Your task to perform on an android device: Go to ESPN.com Image 0: 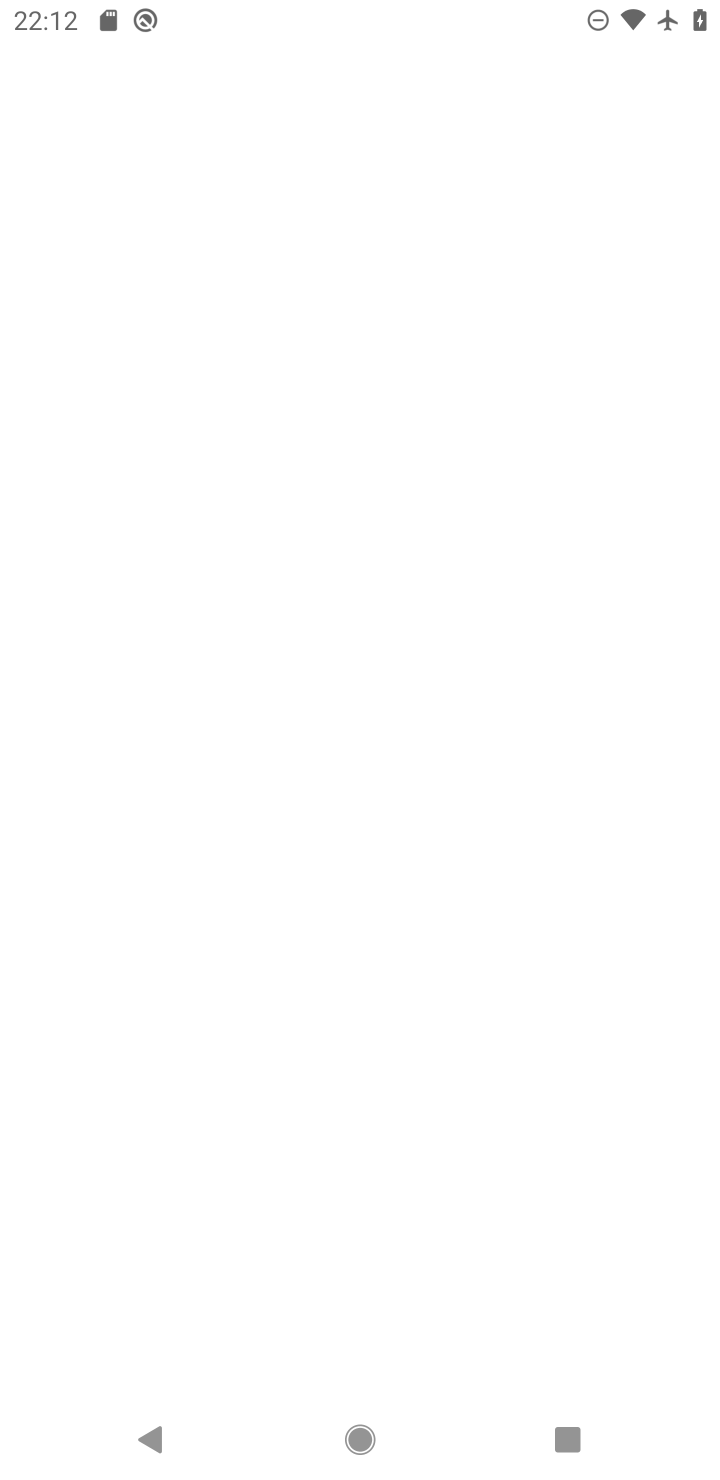
Step 0: press home button
Your task to perform on an android device: Go to ESPN.com Image 1: 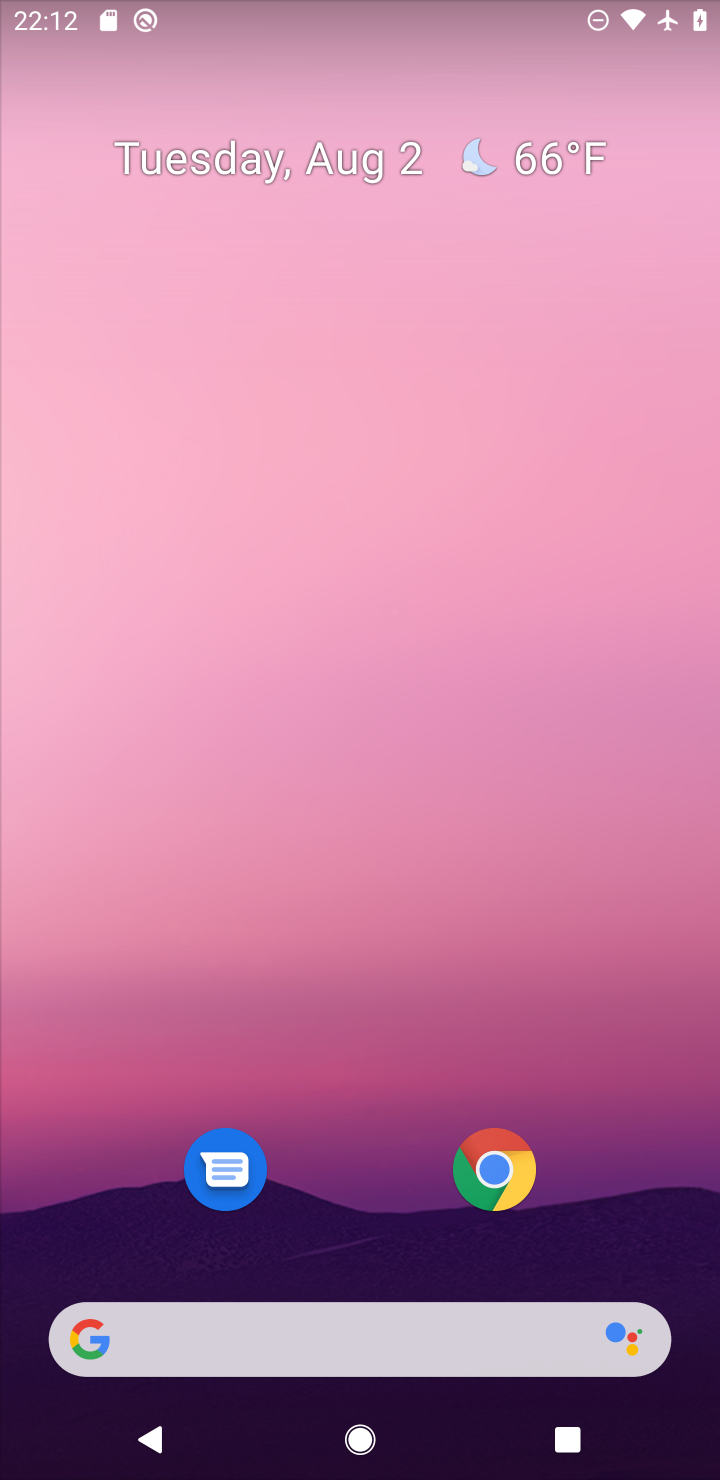
Step 1: click (500, 1168)
Your task to perform on an android device: Go to ESPN.com Image 2: 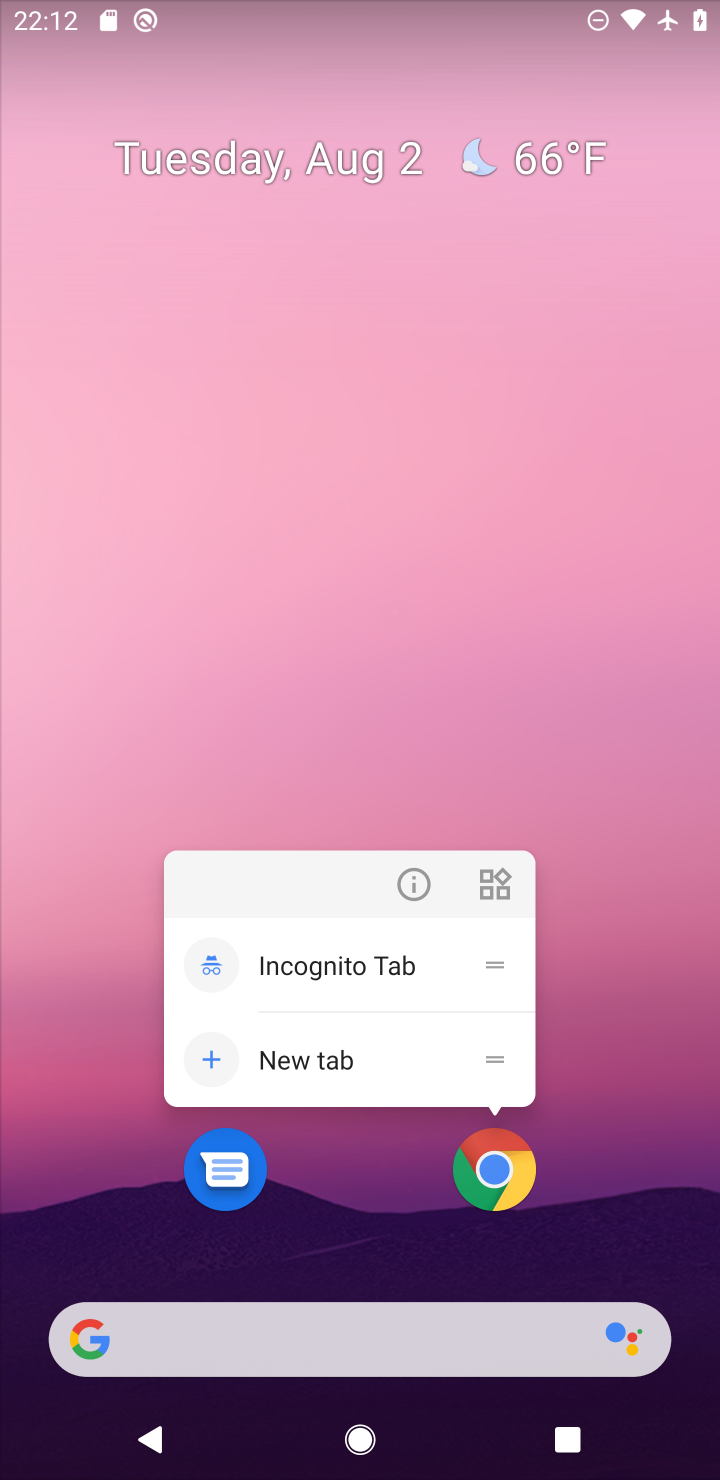
Step 2: click (500, 1170)
Your task to perform on an android device: Go to ESPN.com Image 3: 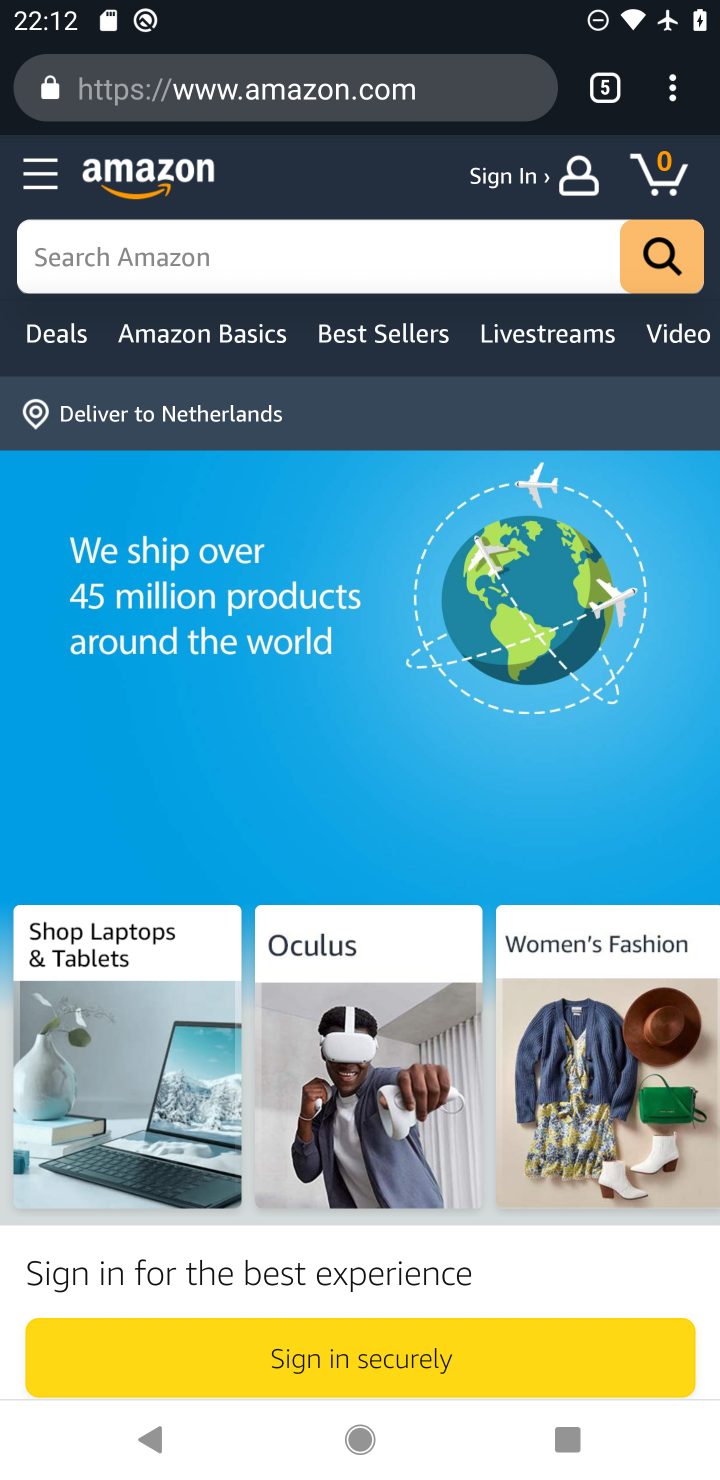
Step 3: click (677, 99)
Your task to perform on an android device: Go to ESPN.com Image 4: 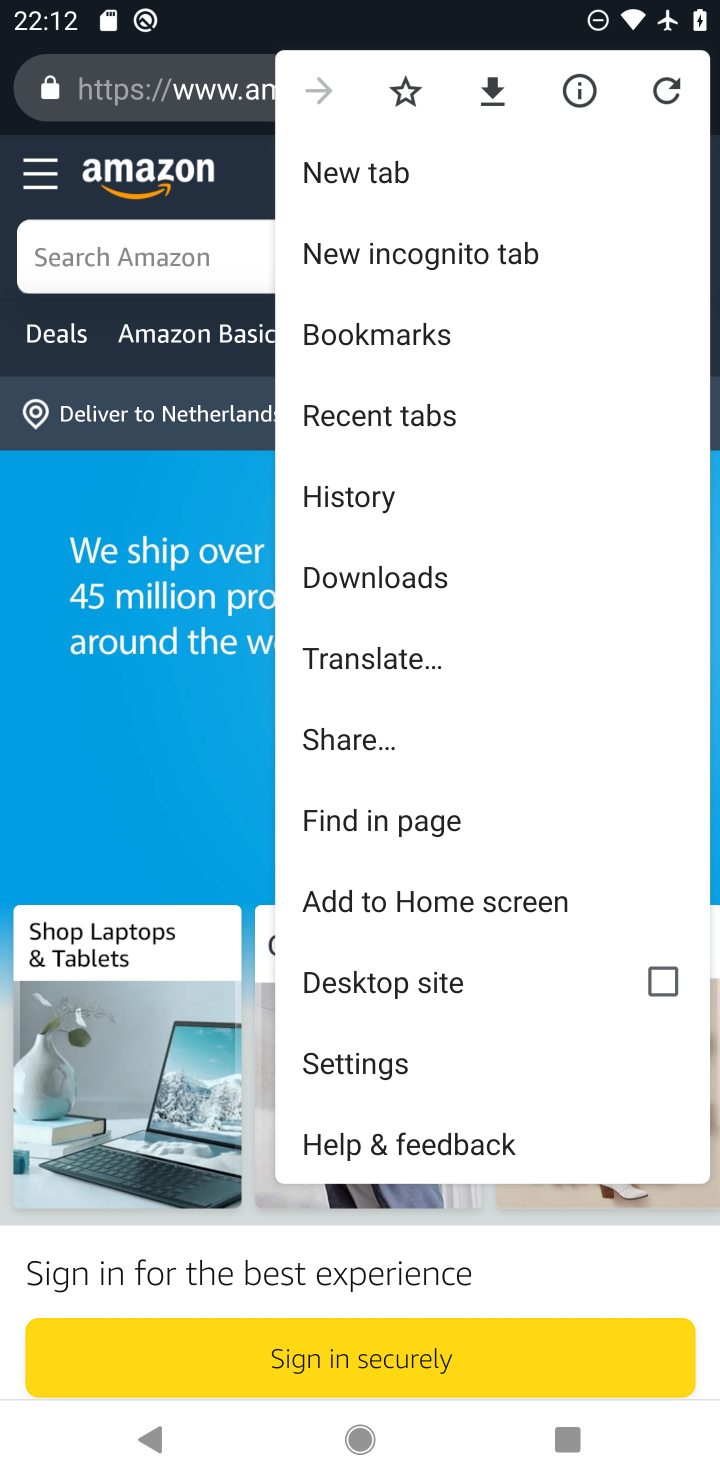
Step 4: click (357, 161)
Your task to perform on an android device: Go to ESPN.com Image 5: 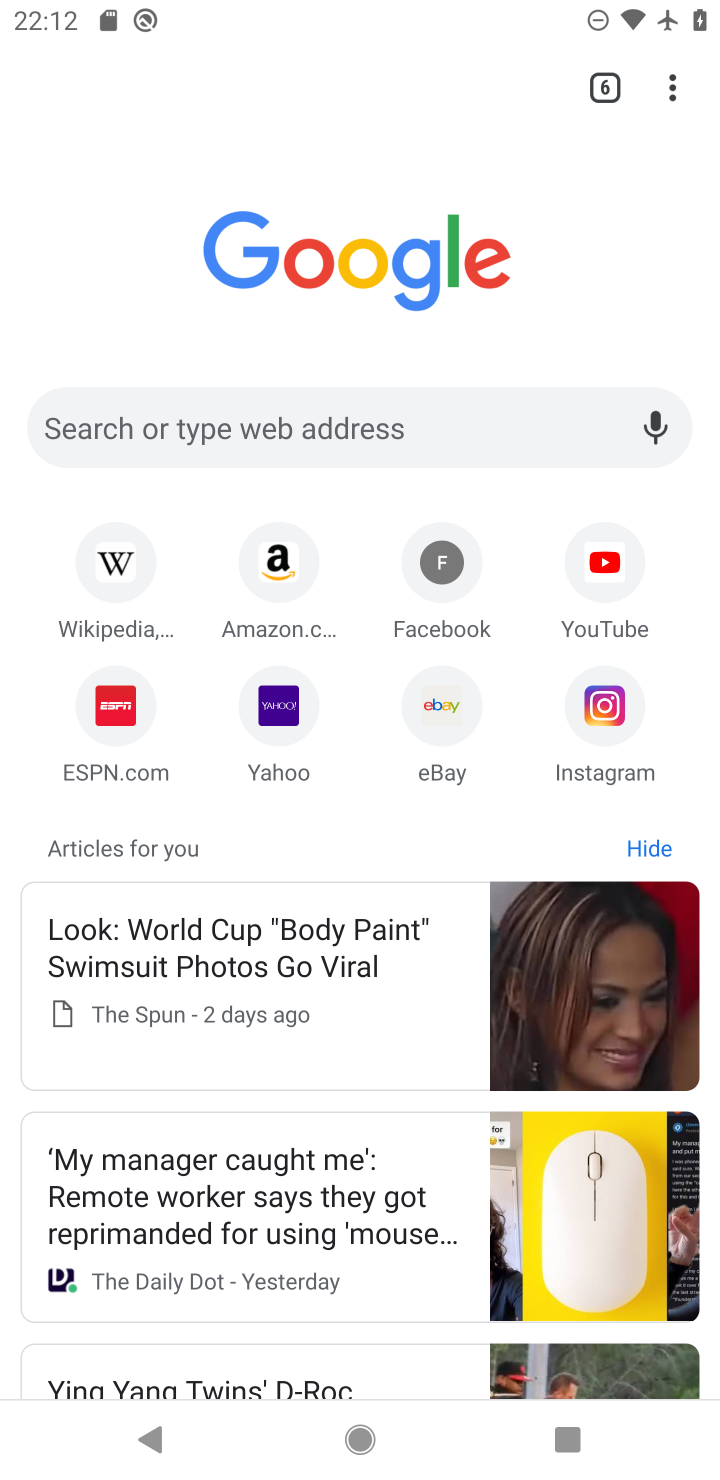
Step 5: click (115, 719)
Your task to perform on an android device: Go to ESPN.com Image 6: 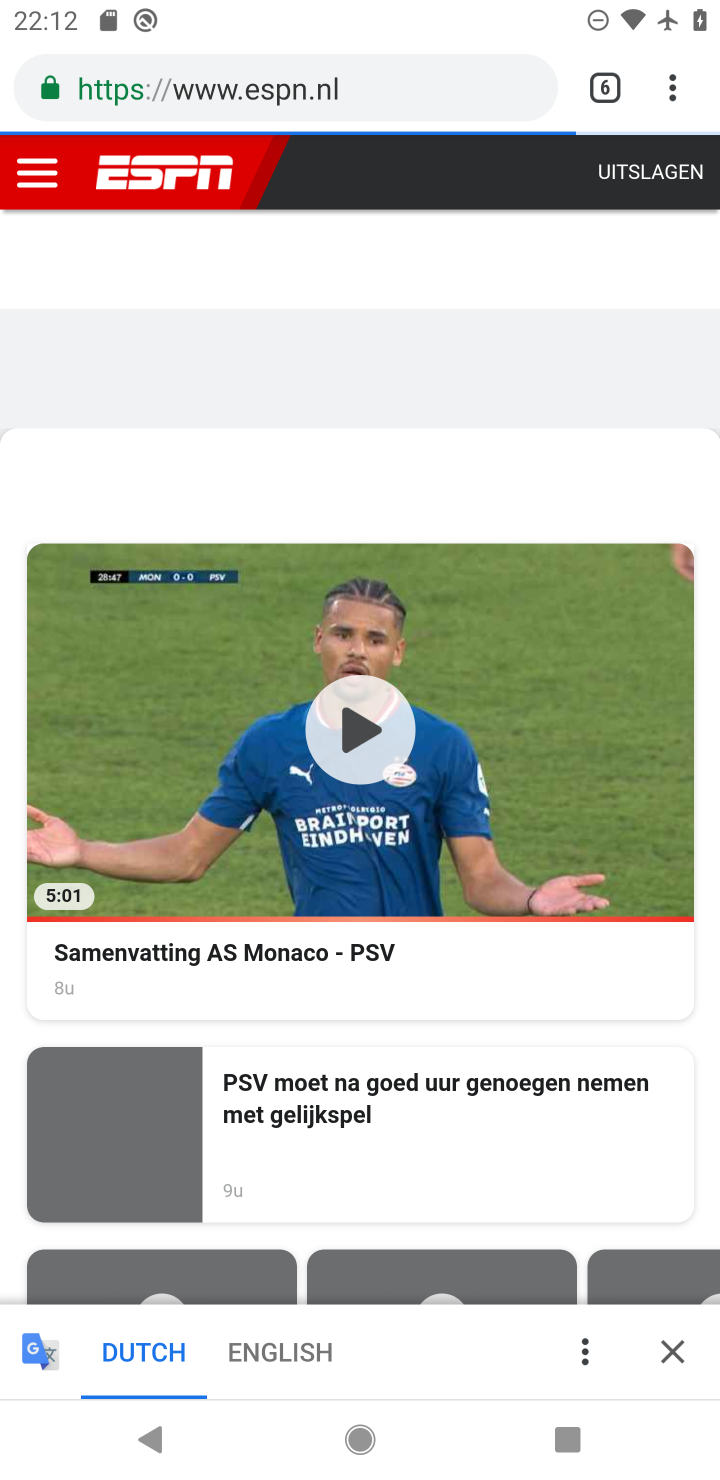
Step 6: task complete